Your task to perform on an android device: open device folders in google photos Image 0: 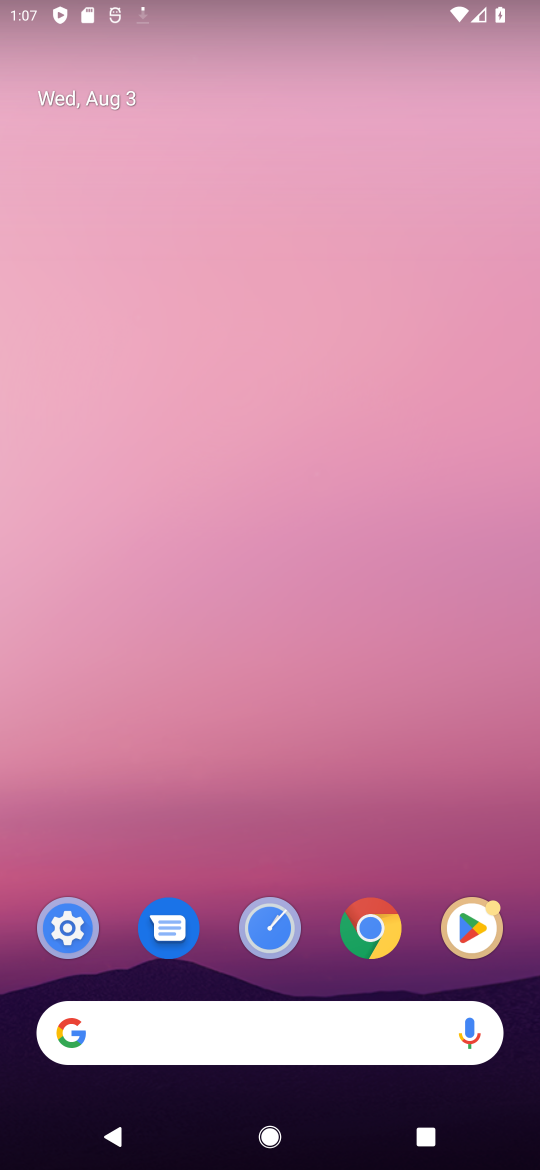
Step 0: drag from (331, 881) to (265, 90)
Your task to perform on an android device: open device folders in google photos Image 1: 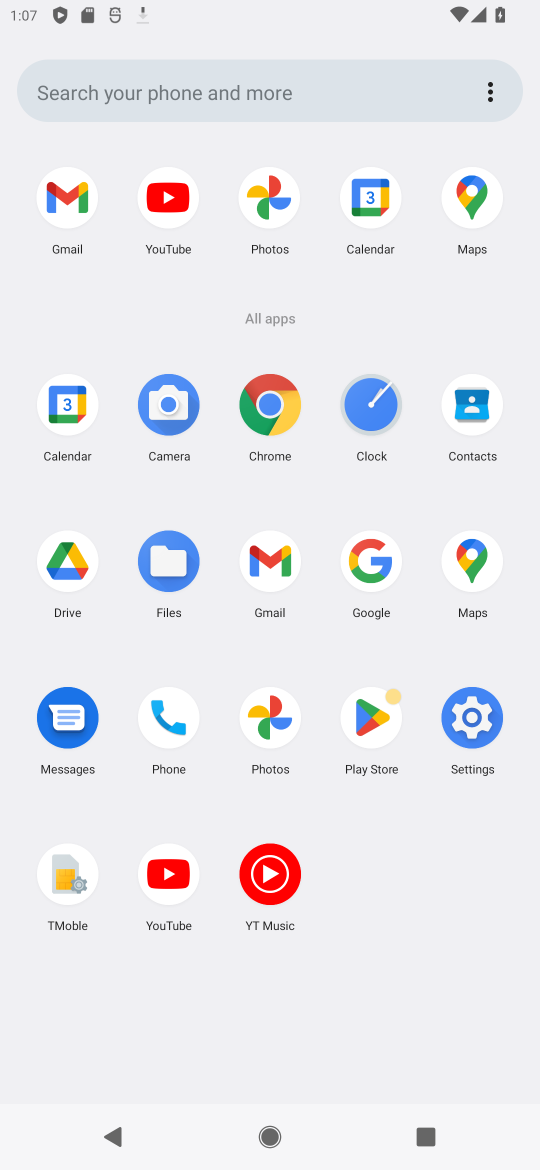
Step 1: click (253, 724)
Your task to perform on an android device: open device folders in google photos Image 2: 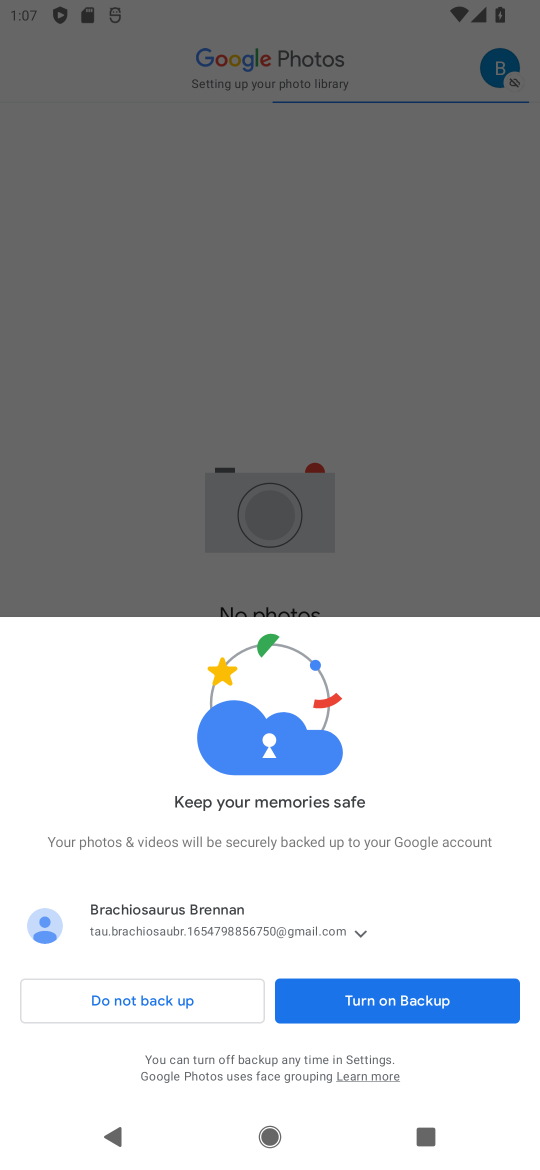
Step 2: click (229, 997)
Your task to perform on an android device: open device folders in google photos Image 3: 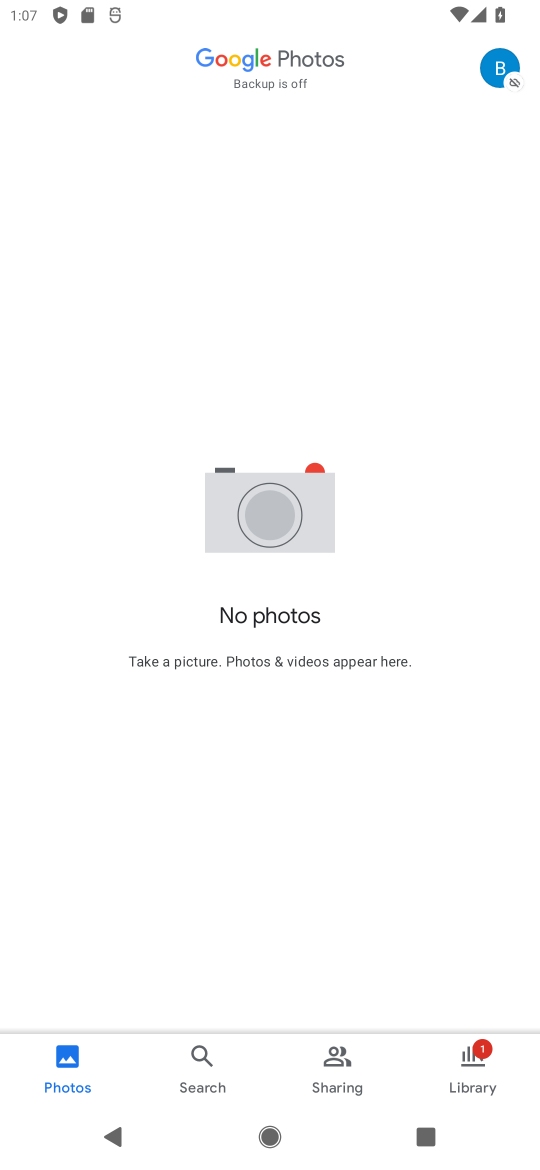
Step 3: click (502, 85)
Your task to perform on an android device: open device folders in google photos Image 4: 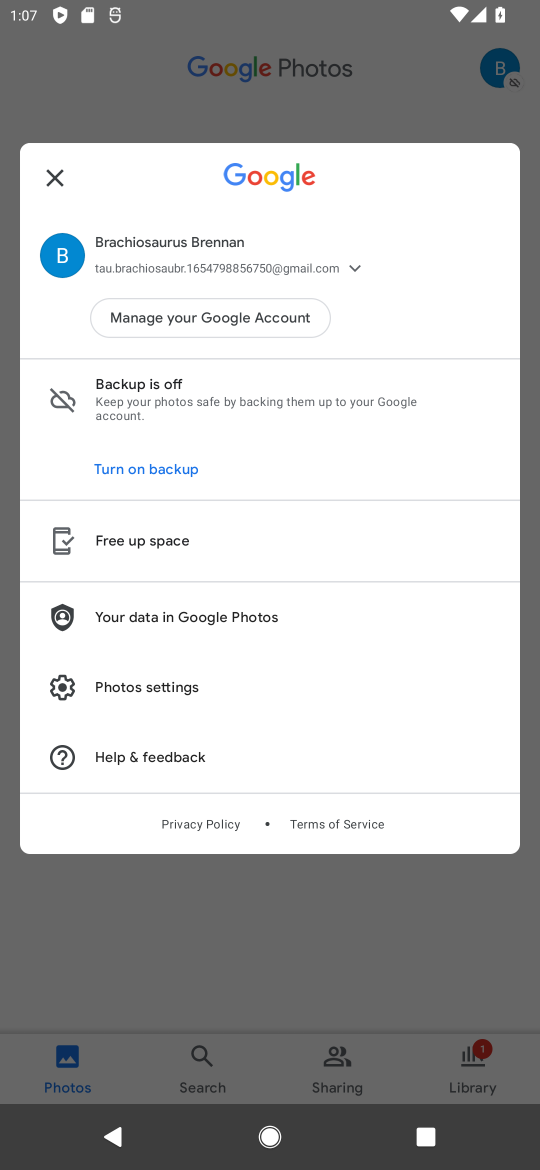
Step 4: click (408, 890)
Your task to perform on an android device: open device folders in google photos Image 5: 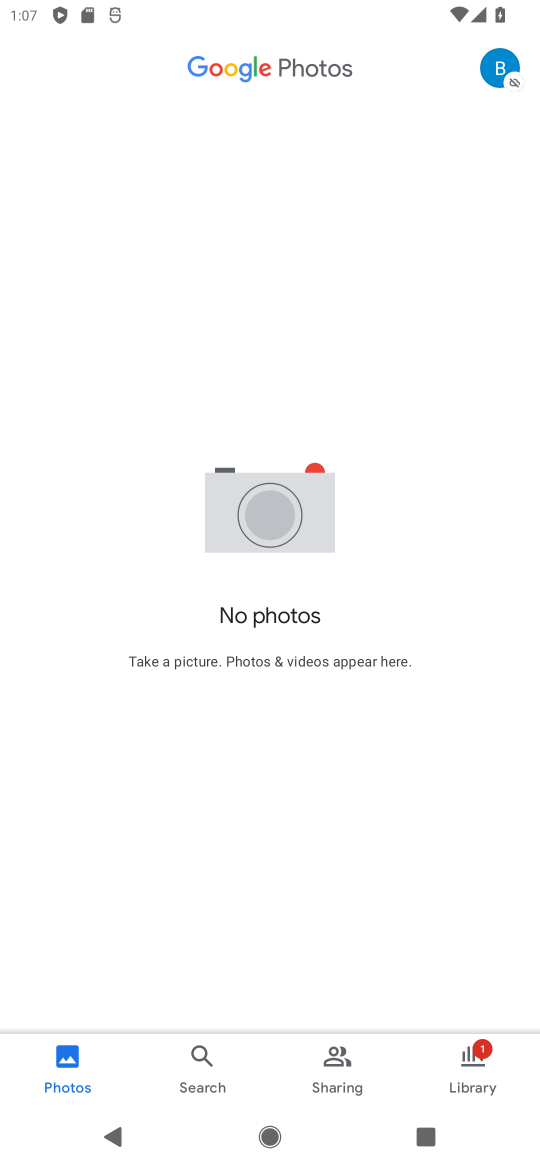
Step 5: click (483, 1055)
Your task to perform on an android device: open device folders in google photos Image 6: 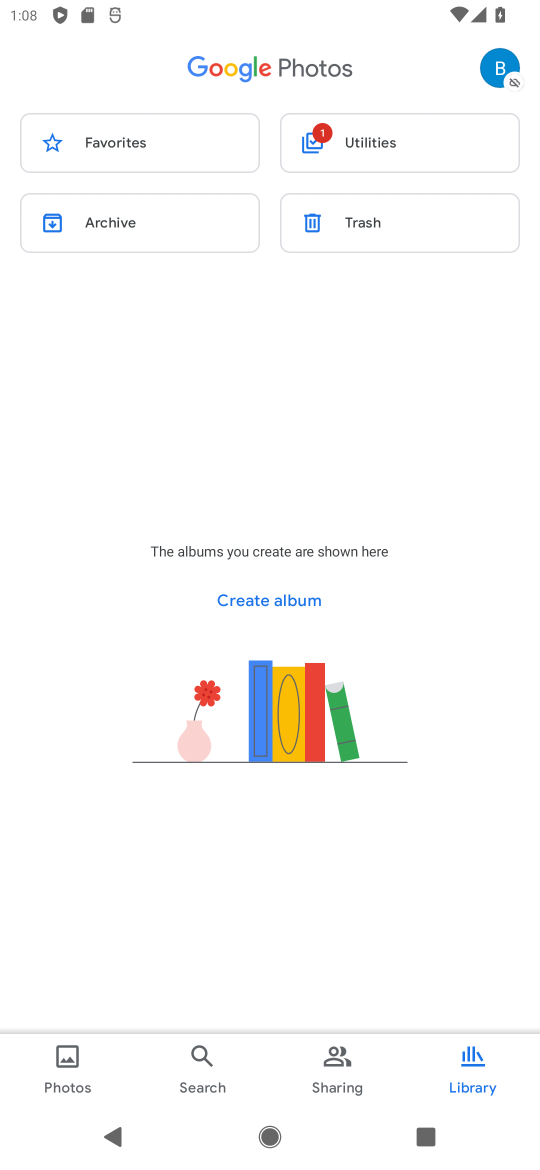
Step 6: task complete